Your task to perform on an android device: change the clock display to digital Image 0: 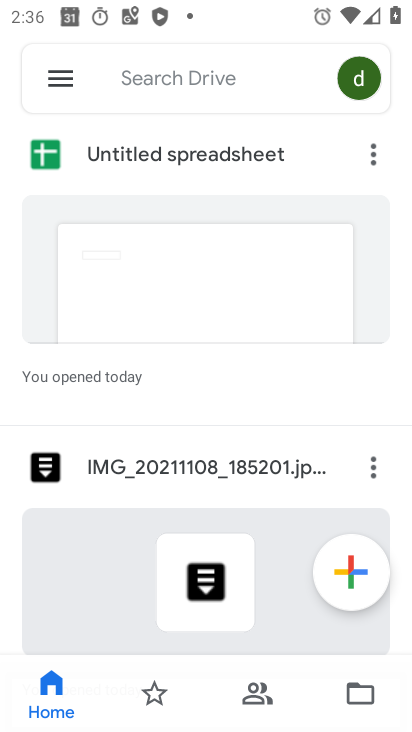
Step 0: press home button
Your task to perform on an android device: change the clock display to digital Image 1: 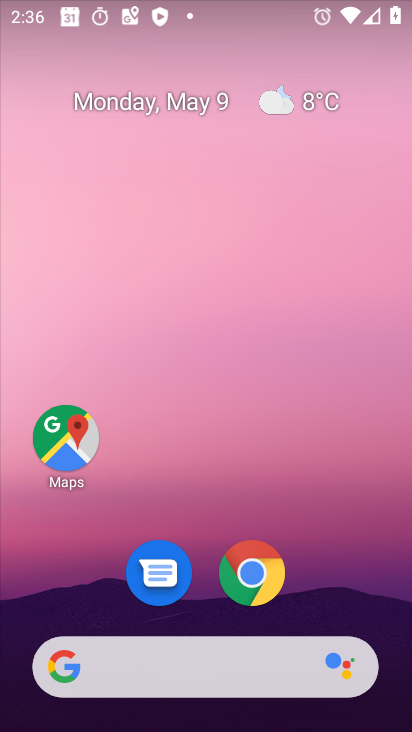
Step 1: drag from (162, 674) to (273, 105)
Your task to perform on an android device: change the clock display to digital Image 2: 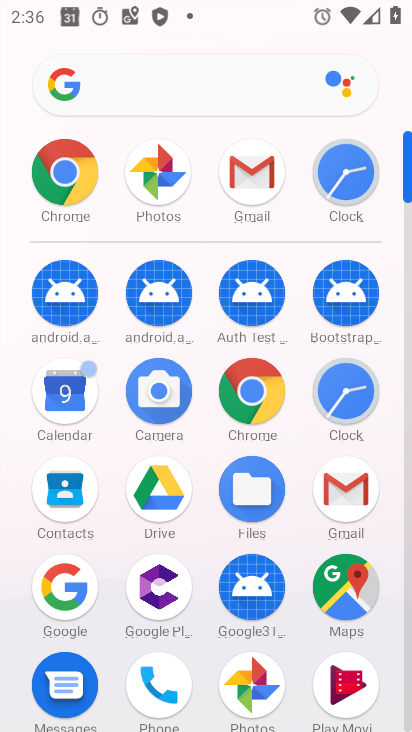
Step 2: click (354, 176)
Your task to perform on an android device: change the clock display to digital Image 3: 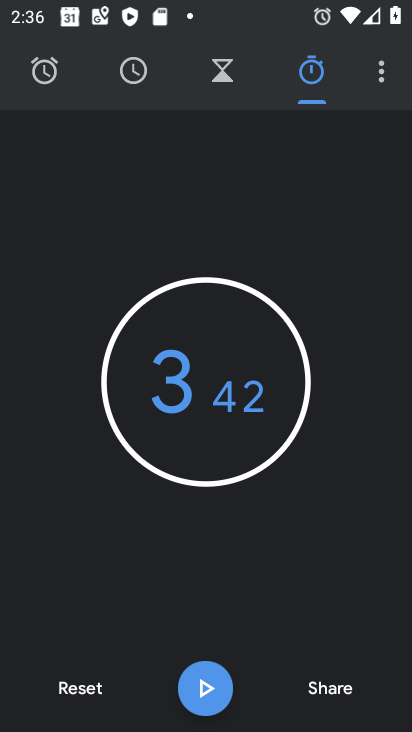
Step 3: click (380, 81)
Your task to perform on an android device: change the clock display to digital Image 4: 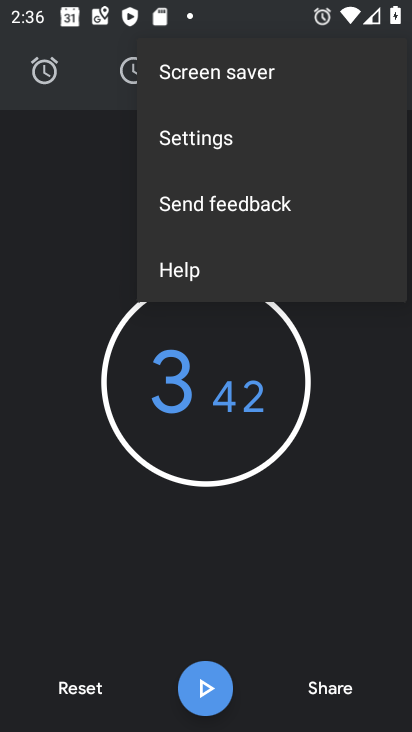
Step 4: click (180, 141)
Your task to perform on an android device: change the clock display to digital Image 5: 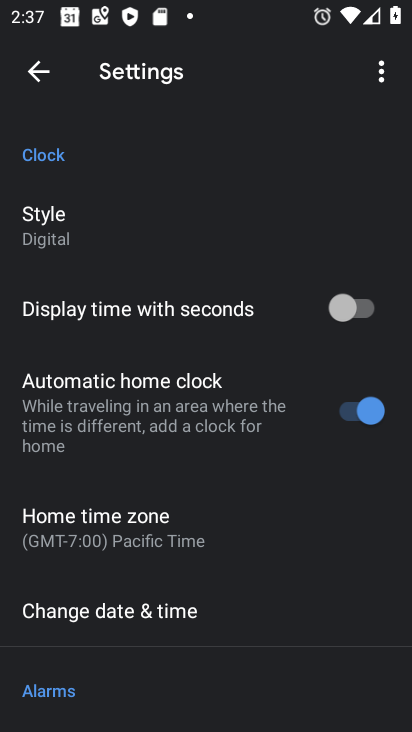
Step 5: task complete